Your task to perform on an android device: change alarm snooze length Image 0: 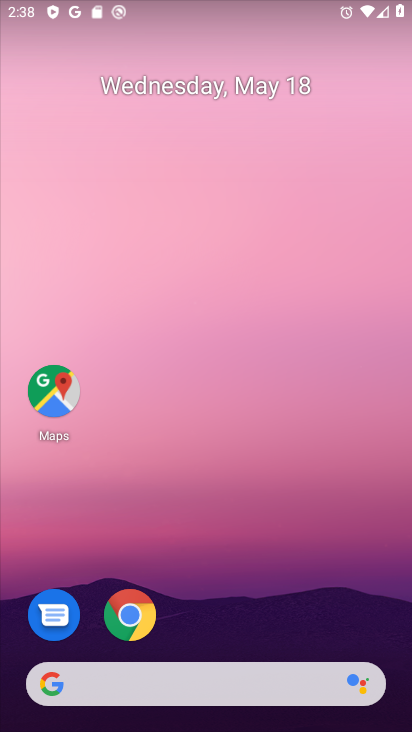
Step 0: drag from (190, 647) to (153, 279)
Your task to perform on an android device: change alarm snooze length Image 1: 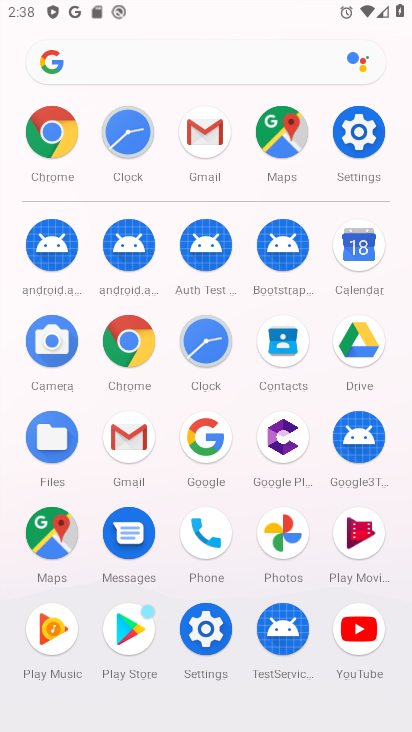
Step 1: click (202, 344)
Your task to perform on an android device: change alarm snooze length Image 2: 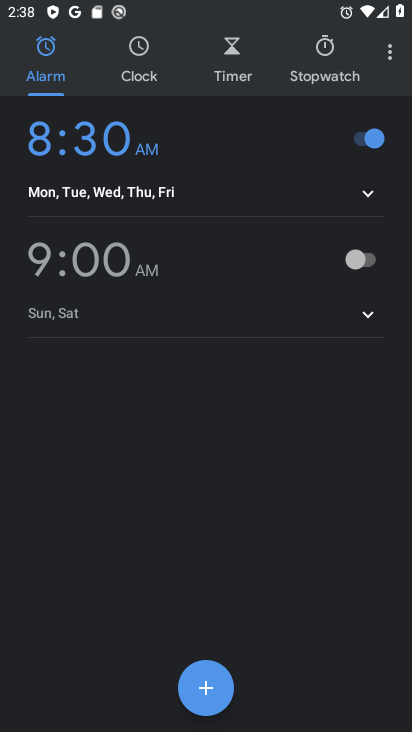
Step 2: click (391, 53)
Your task to perform on an android device: change alarm snooze length Image 3: 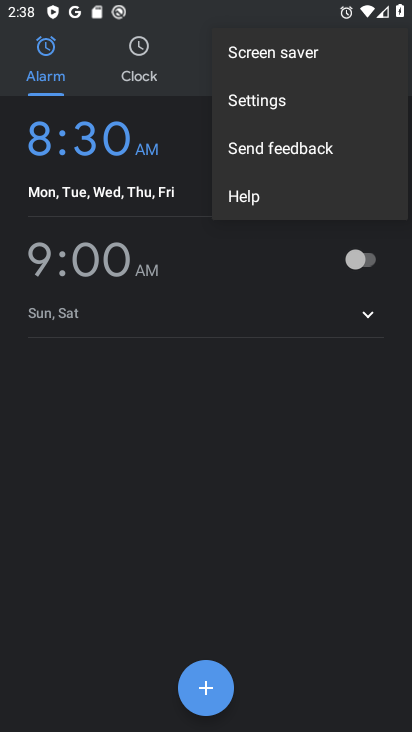
Step 3: click (292, 109)
Your task to perform on an android device: change alarm snooze length Image 4: 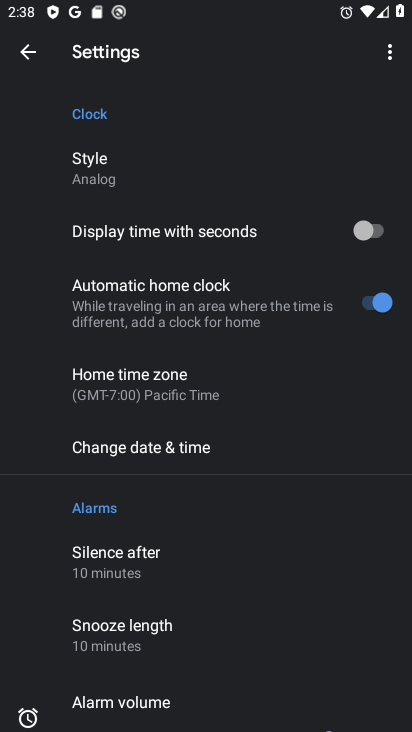
Step 4: click (147, 633)
Your task to perform on an android device: change alarm snooze length Image 5: 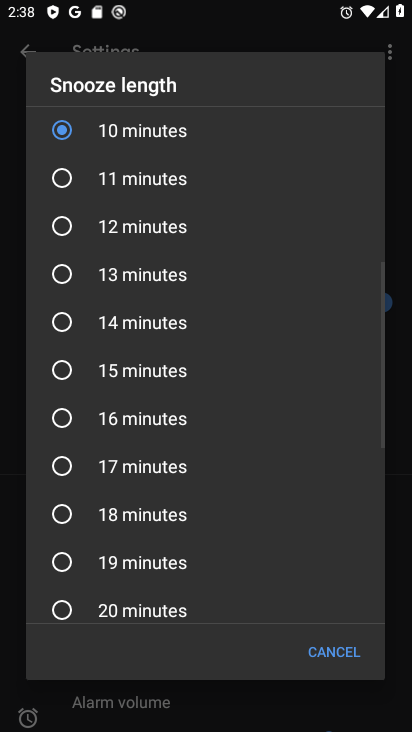
Step 5: click (87, 192)
Your task to perform on an android device: change alarm snooze length Image 6: 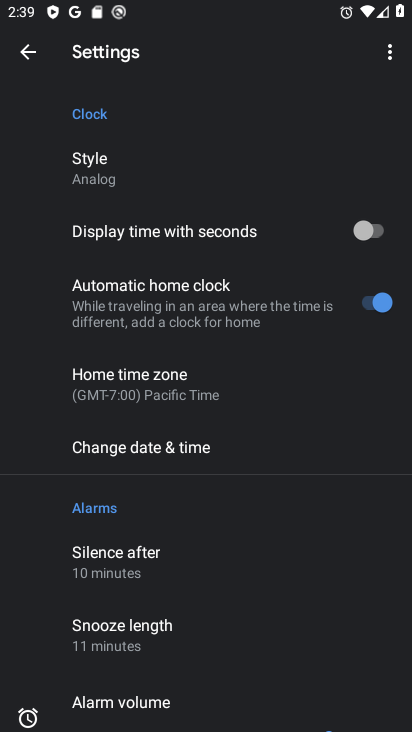
Step 6: task complete